Your task to perform on an android device: Show me recent news Image 0: 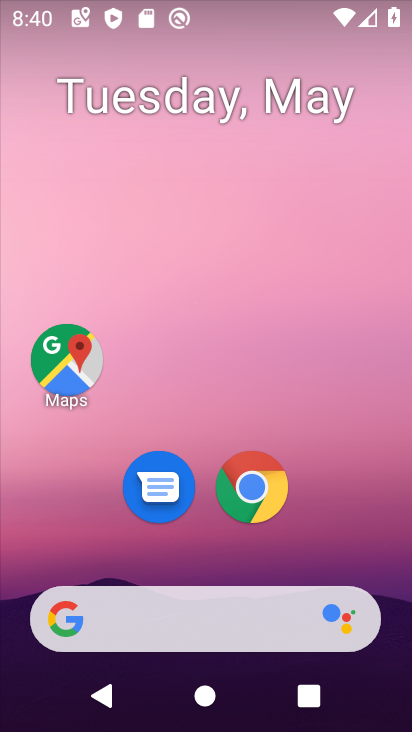
Step 0: drag from (1, 249) to (388, 266)
Your task to perform on an android device: Show me recent news Image 1: 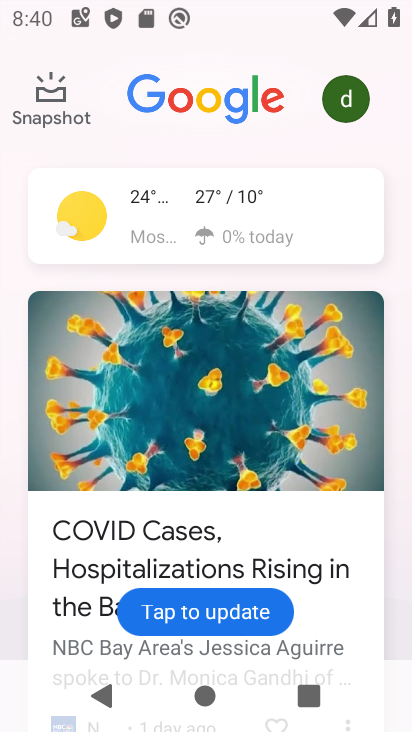
Step 1: task complete